Your task to perform on an android device: toggle priority inbox in the gmail app Image 0: 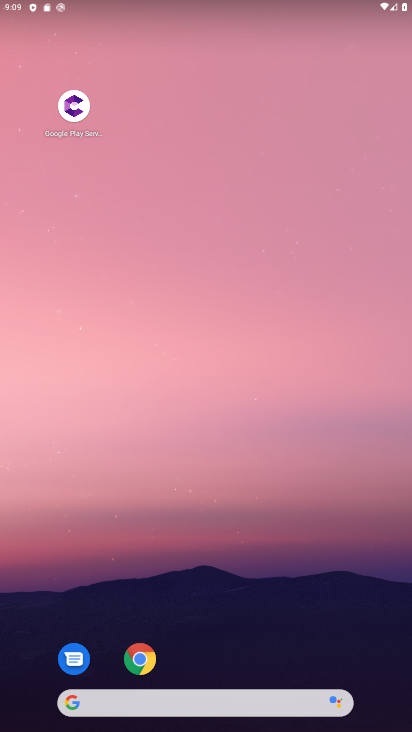
Step 0: drag from (241, 526) to (169, 17)
Your task to perform on an android device: toggle priority inbox in the gmail app Image 1: 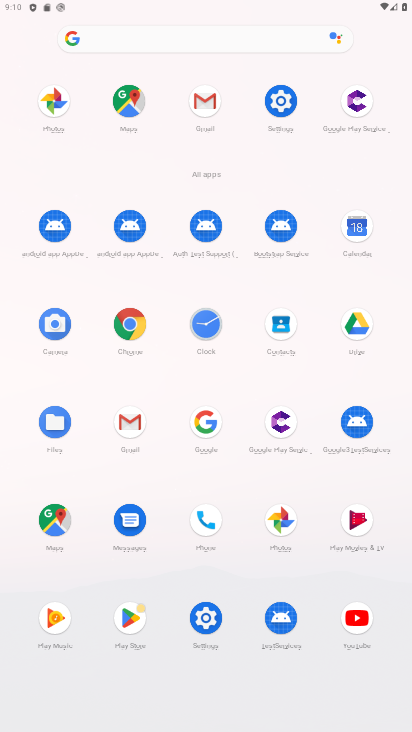
Step 1: click (127, 423)
Your task to perform on an android device: toggle priority inbox in the gmail app Image 2: 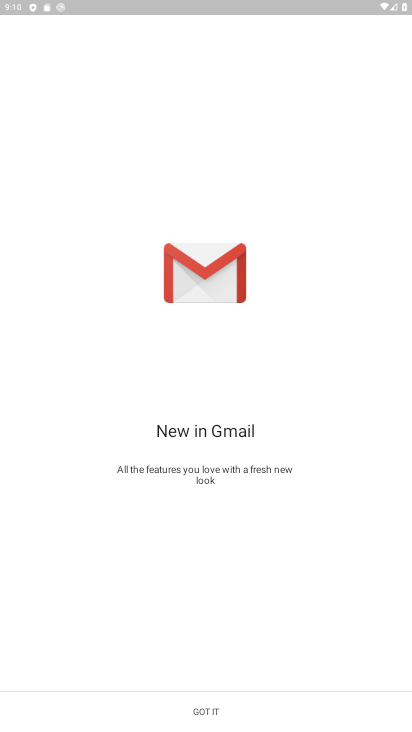
Step 2: click (216, 704)
Your task to perform on an android device: toggle priority inbox in the gmail app Image 3: 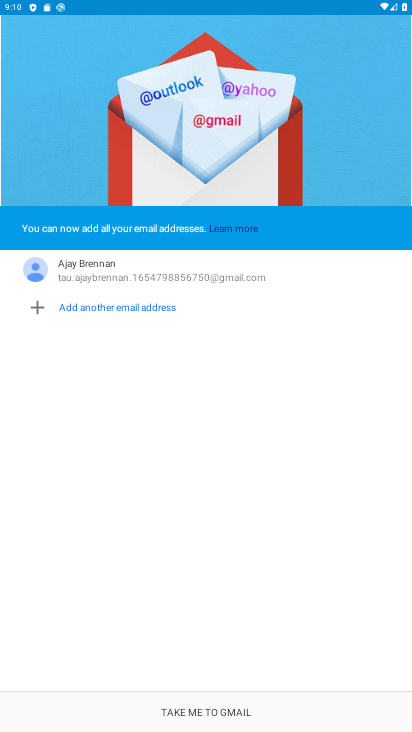
Step 3: click (225, 709)
Your task to perform on an android device: toggle priority inbox in the gmail app Image 4: 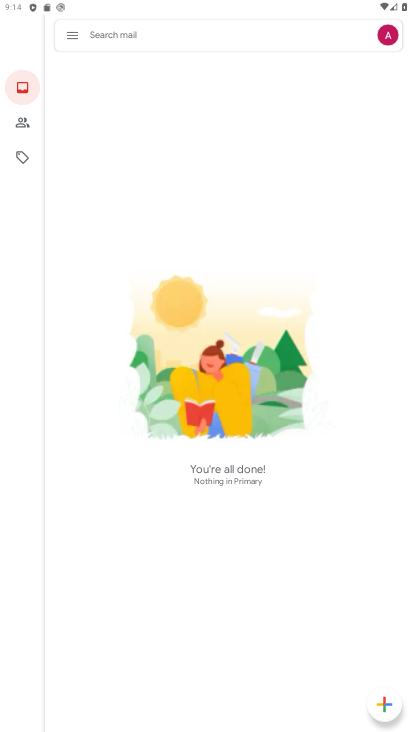
Step 4: click (67, 37)
Your task to perform on an android device: toggle priority inbox in the gmail app Image 5: 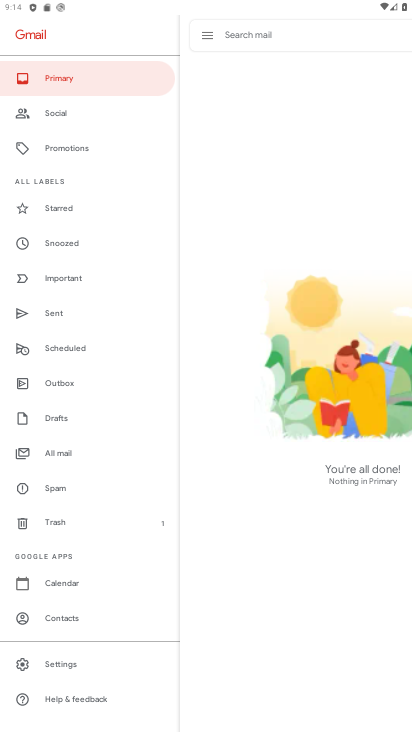
Step 5: task complete